Your task to perform on an android device: Open CNN.com Image 0: 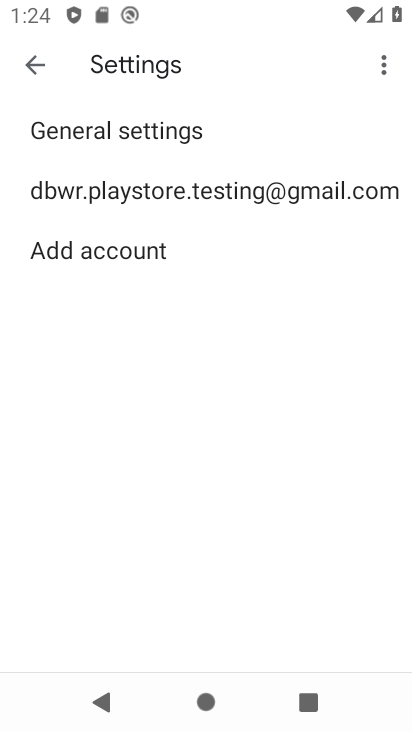
Step 0: press home button
Your task to perform on an android device: Open CNN.com Image 1: 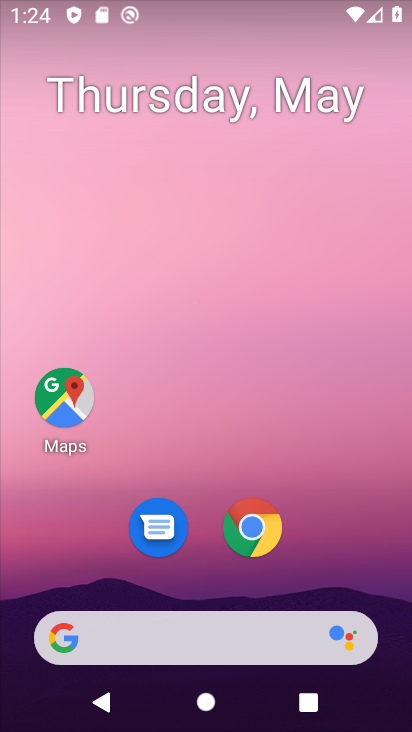
Step 1: drag from (358, 544) to (372, 184)
Your task to perform on an android device: Open CNN.com Image 2: 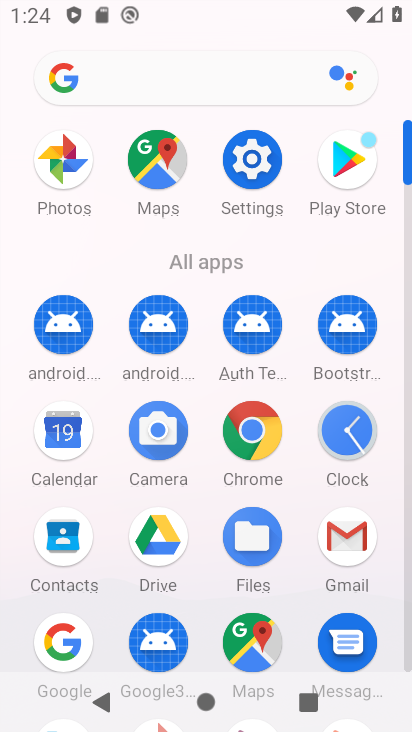
Step 2: click (256, 439)
Your task to perform on an android device: Open CNN.com Image 3: 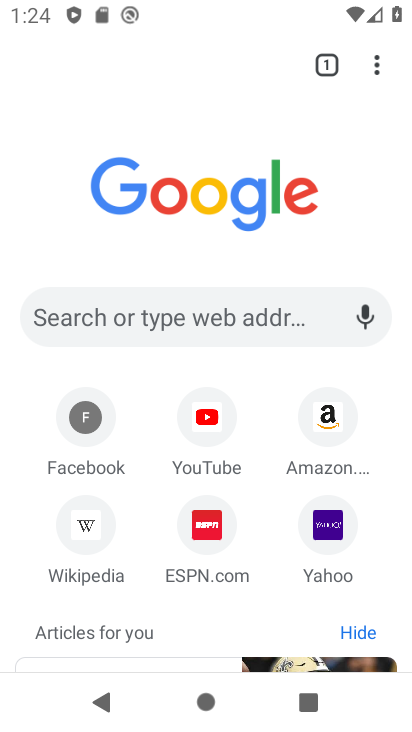
Step 3: click (202, 310)
Your task to perform on an android device: Open CNN.com Image 4: 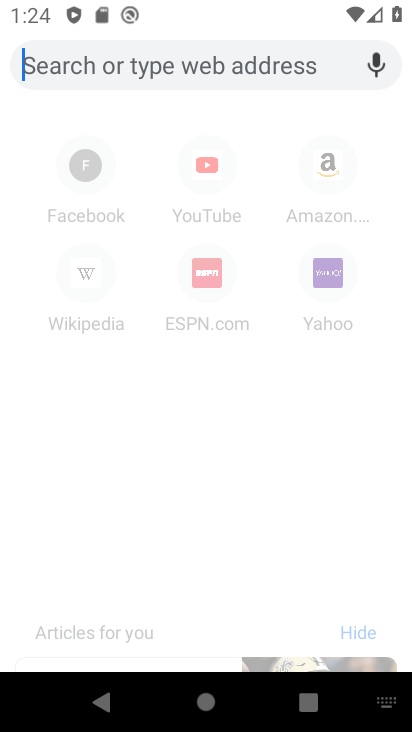
Step 4: type "cnn.com"
Your task to perform on an android device: Open CNN.com Image 5: 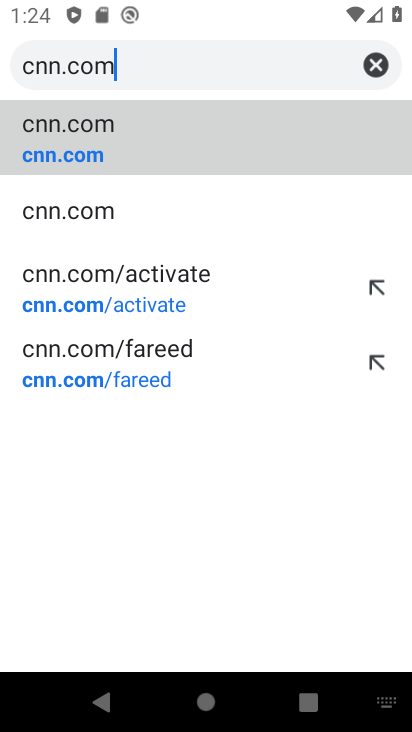
Step 5: click (97, 148)
Your task to perform on an android device: Open CNN.com Image 6: 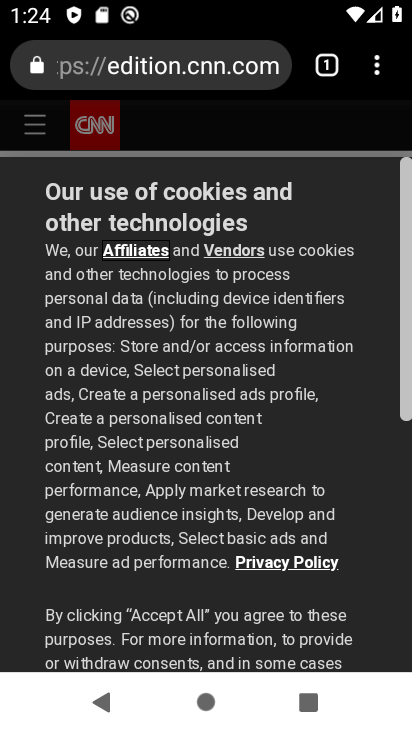
Step 6: task complete